Your task to perform on an android device: Open Reddit.com Image 0: 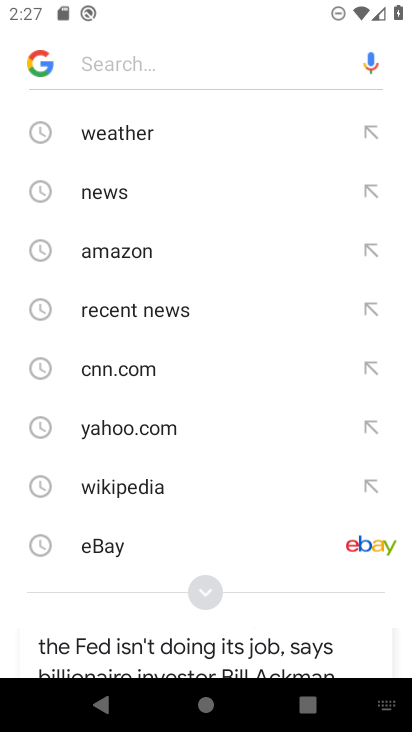
Step 0: press home button
Your task to perform on an android device: Open Reddit.com Image 1: 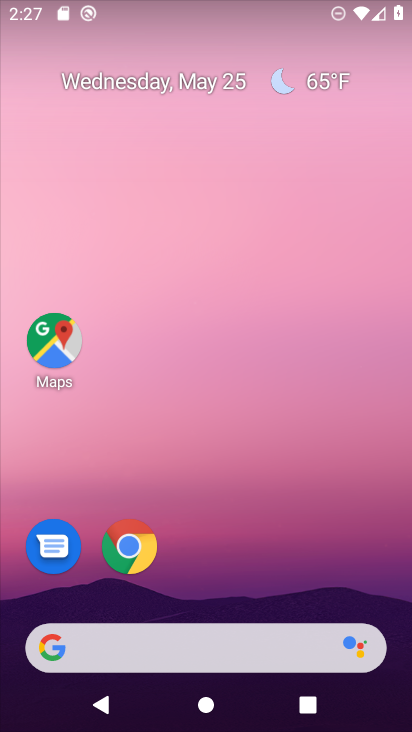
Step 1: click (169, 638)
Your task to perform on an android device: Open Reddit.com Image 2: 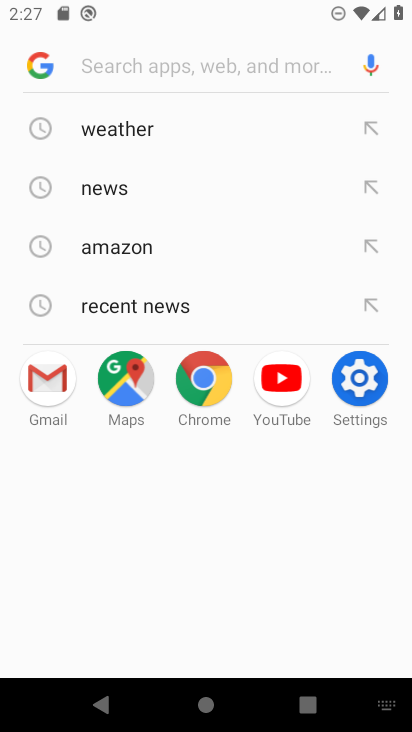
Step 2: click (238, 57)
Your task to perform on an android device: Open Reddit.com Image 3: 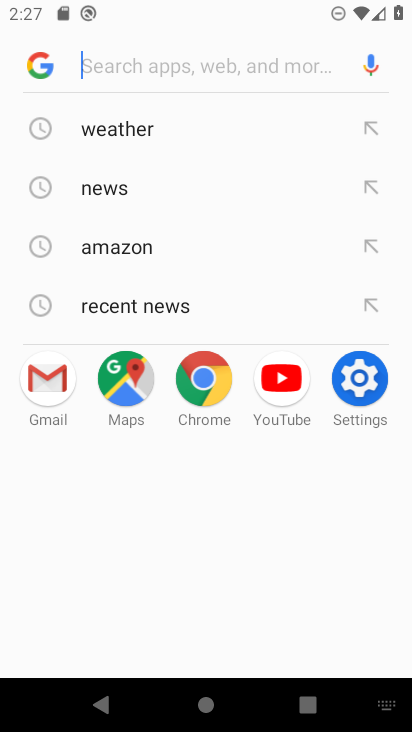
Step 3: type "Reddit.com"
Your task to perform on an android device: Open Reddit.com Image 4: 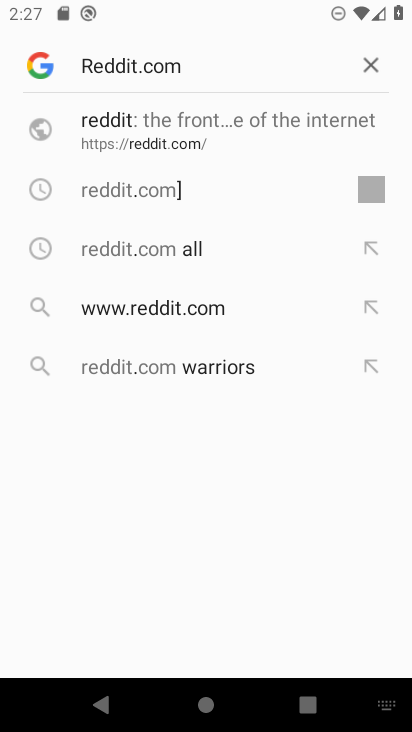
Step 4: click (136, 243)
Your task to perform on an android device: Open Reddit.com Image 5: 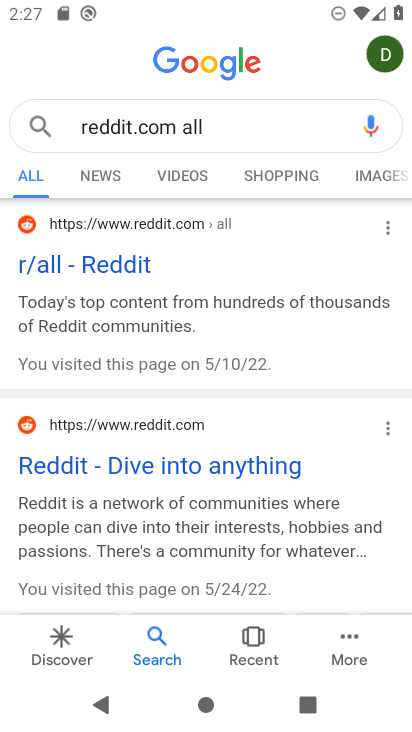
Step 5: task complete